Your task to perform on an android device: Search for Italian restaurants on Maps Image 0: 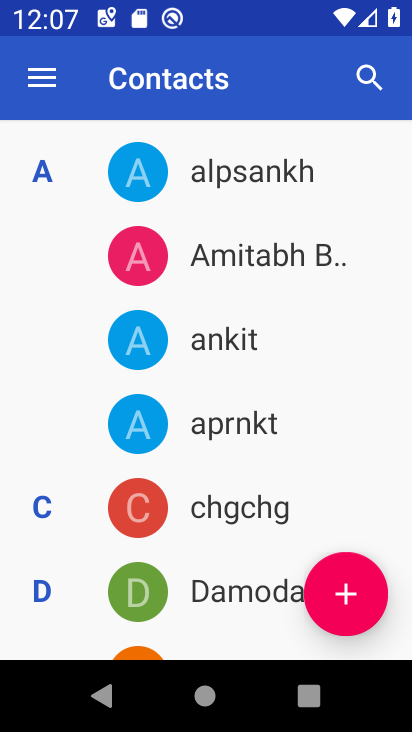
Step 0: press home button
Your task to perform on an android device: Search for Italian restaurants on Maps Image 1: 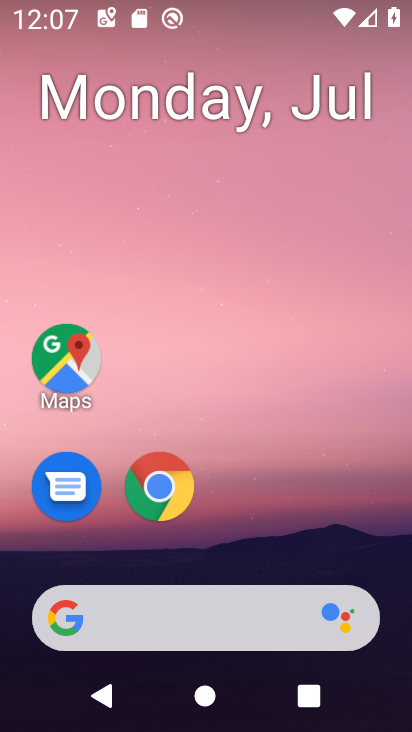
Step 1: drag from (354, 523) to (346, 112)
Your task to perform on an android device: Search for Italian restaurants on Maps Image 2: 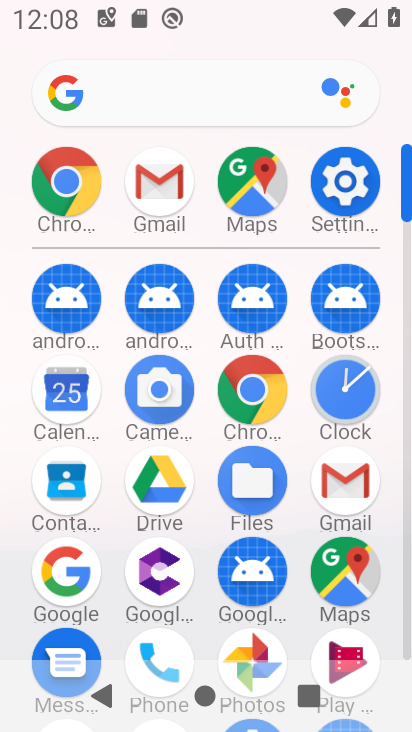
Step 2: click (349, 557)
Your task to perform on an android device: Search for Italian restaurants on Maps Image 3: 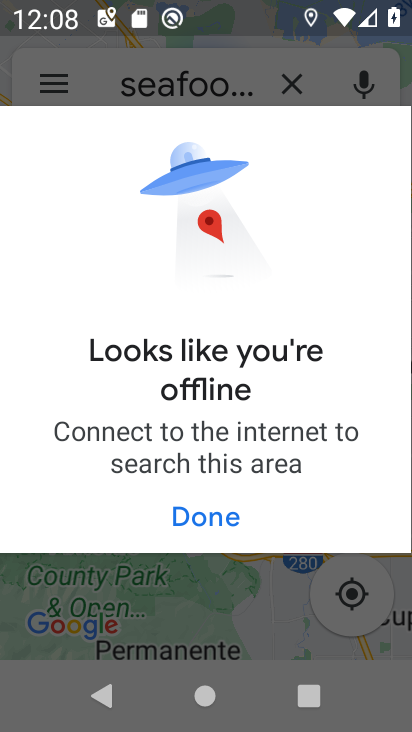
Step 3: press back button
Your task to perform on an android device: Search for Italian restaurants on Maps Image 4: 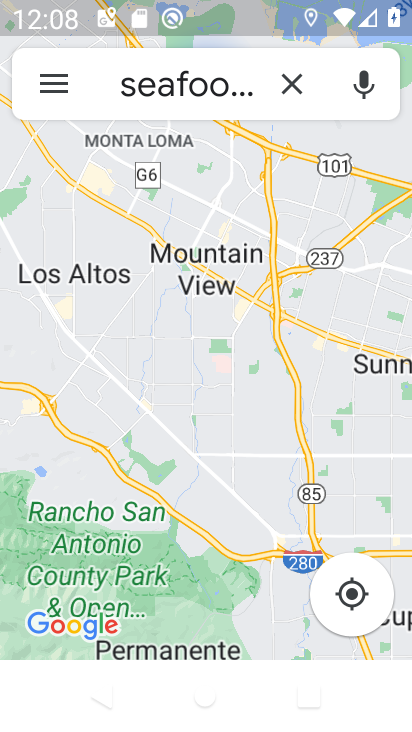
Step 4: press back button
Your task to perform on an android device: Search for Italian restaurants on Maps Image 5: 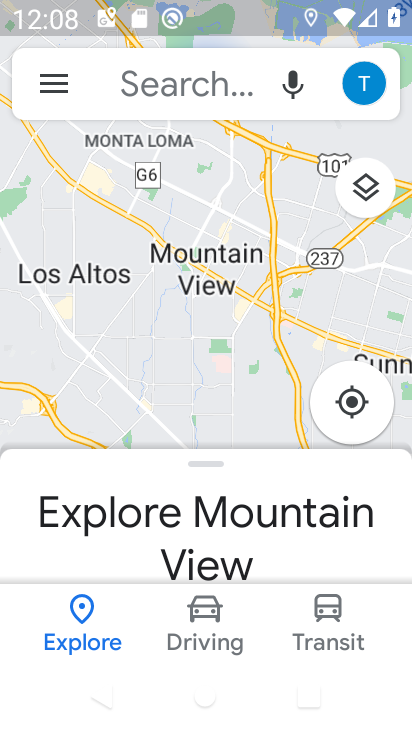
Step 5: click (208, 91)
Your task to perform on an android device: Search for Italian restaurants on Maps Image 6: 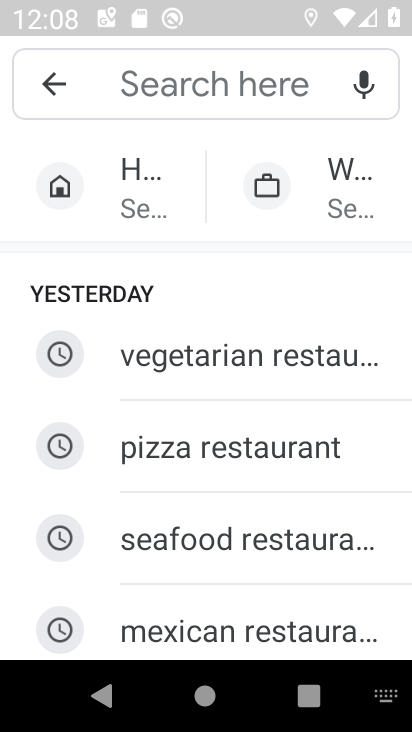
Step 6: type "italian restaurants"
Your task to perform on an android device: Search for Italian restaurants on Maps Image 7: 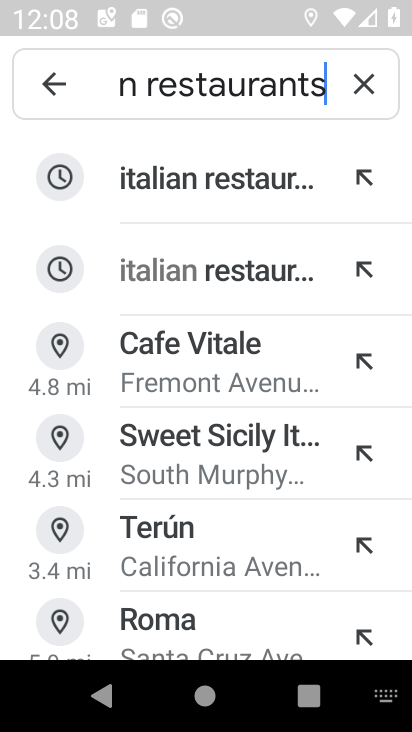
Step 7: click (273, 183)
Your task to perform on an android device: Search for Italian restaurants on Maps Image 8: 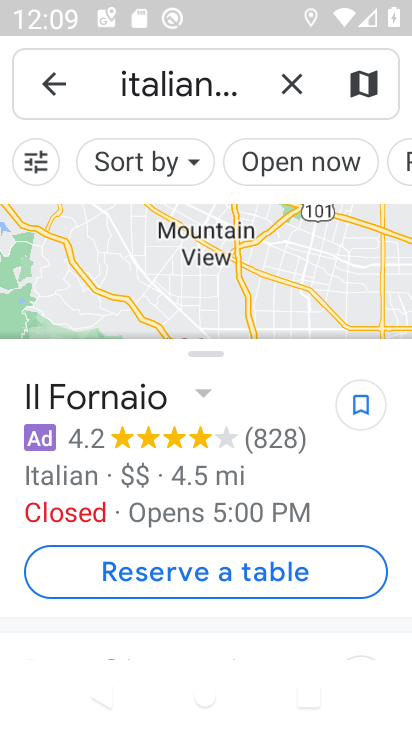
Step 8: task complete